Your task to perform on an android device: Open Amazon Image 0: 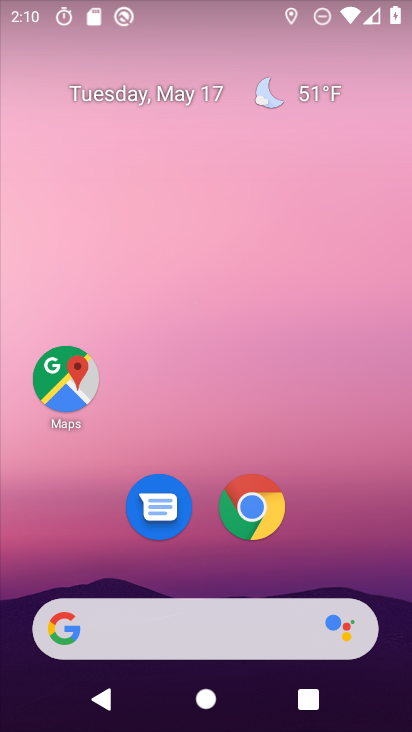
Step 0: click (250, 502)
Your task to perform on an android device: Open Amazon Image 1: 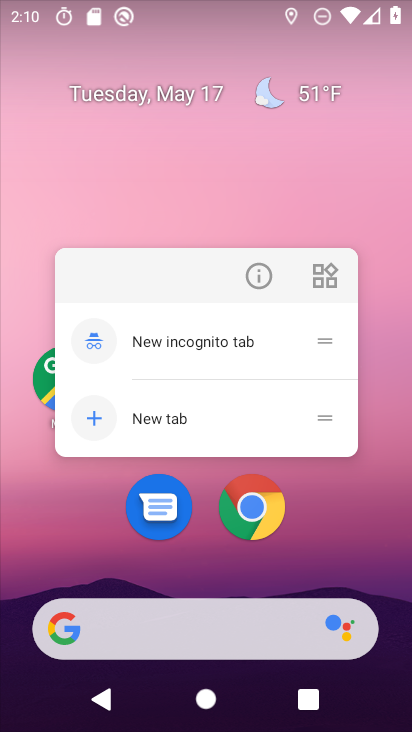
Step 1: click (259, 515)
Your task to perform on an android device: Open Amazon Image 2: 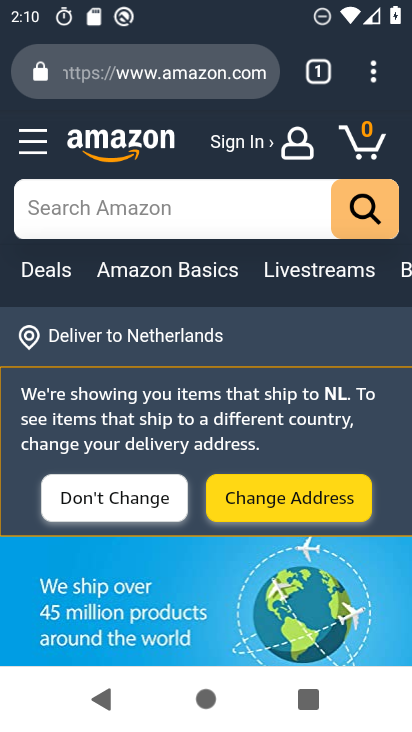
Step 2: task complete